Your task to perform on an android device: Search for sushi restaurants on Maps Image 0: 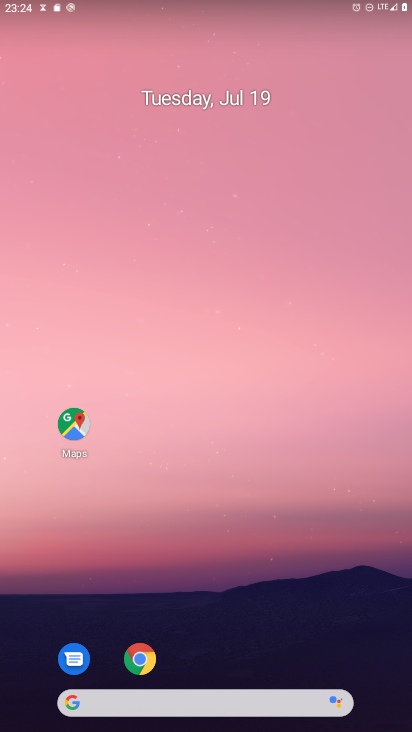
Step 0: drag from (208, 635) to (208, 201)
Your task to perform on an android device: Search for sushi restaurants on Maps Image 1: 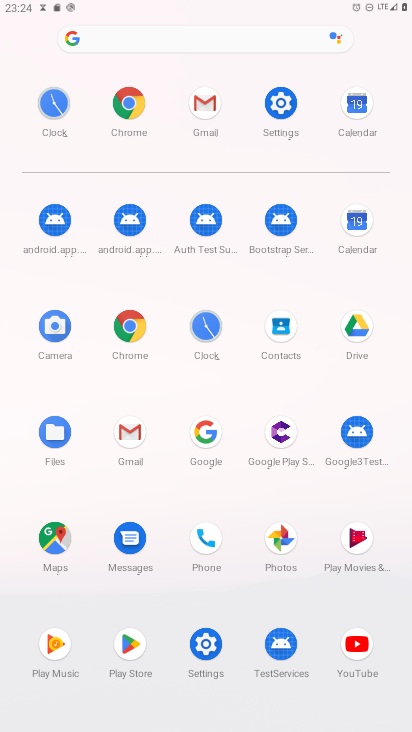
Step 1: click (60, 540)
Your task to perform on an android device: Search for sushi restaurants on Maps Image 2: 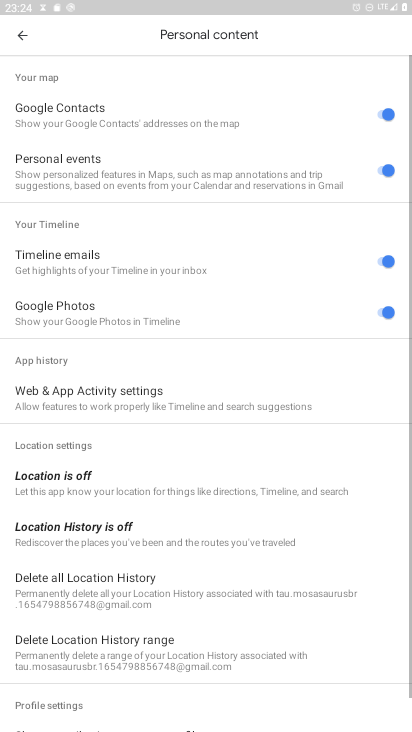
Step 2: click (25, 30)
Your task to perform on an android device: Search for sushi restaurants on Maps Image 3: 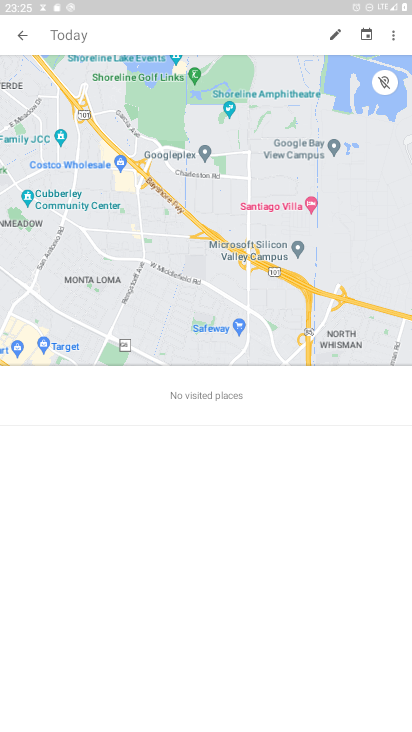
Step 3: click (28, 33)
Your task to perform on an android device: Search for sushi restaurants on Maps Image 4: 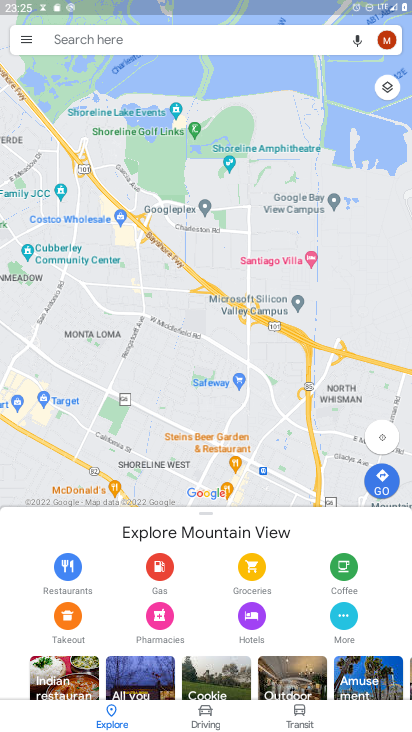
Step 4: click (120, 31)
Your task to perform on an android device: Search for sushi restaurants on Maps Image 5: 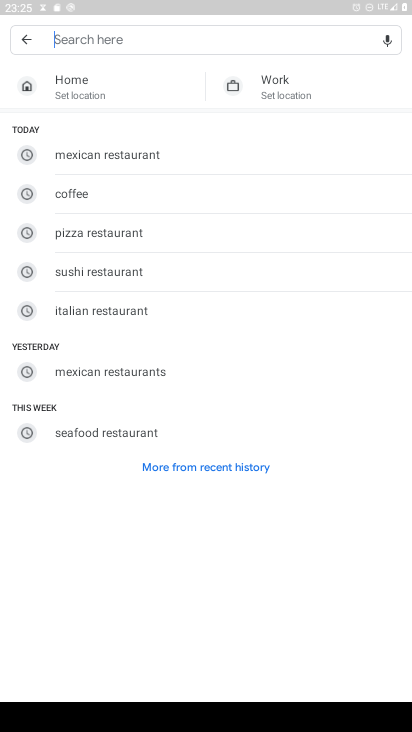
Step 5: click (127, 270)
Your task to perform on an android device: Search for sushi restaurants on Maps Image 6: 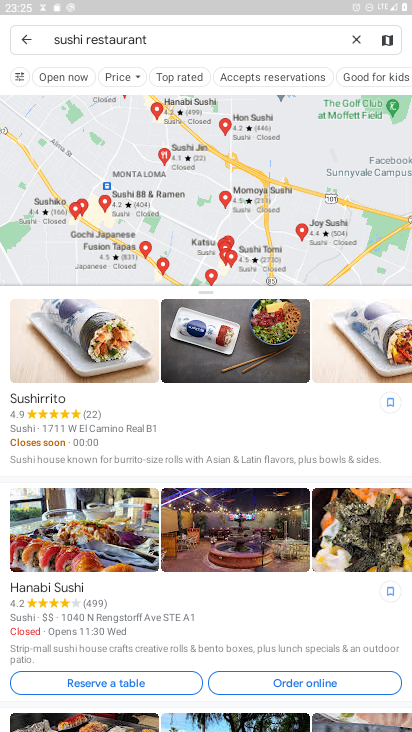
Step 6: task complete